Your task to perform on an android device: toggle data saver in the chrome app Image 0: 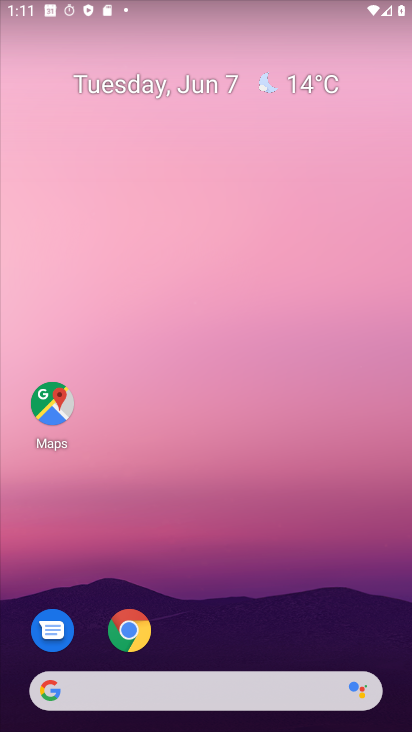
Step 0: click (129, 621)
Your task to perform on an android device: toggle data saver in the chrome app Image 1: 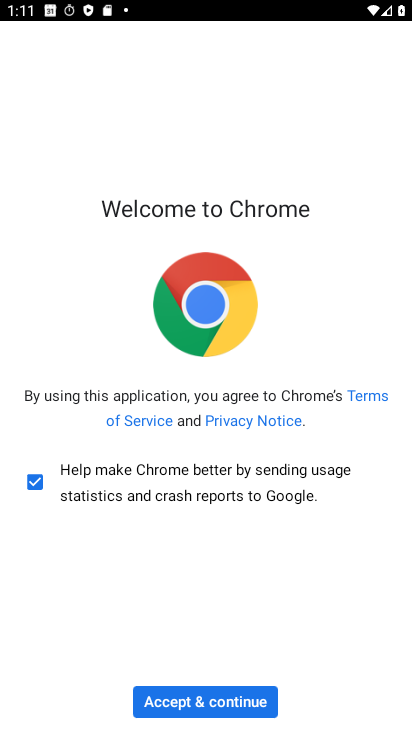
Step 1: click (190, 697)
Your task to perform on an android device: toggle data saver in the chrome app Image 2: 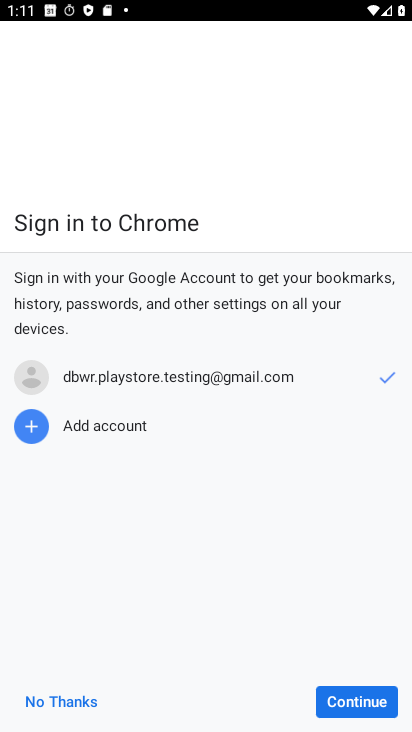
Step 2: click (365, 690)
Your task to perform on an android device: toggle data saver in the chrome app Image 3: 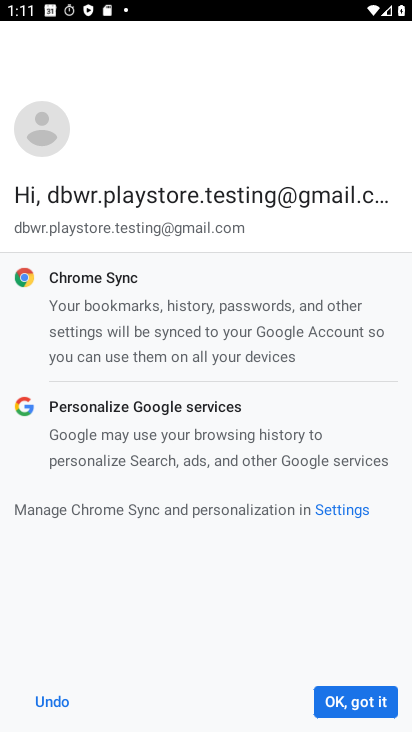
Step 3: click (335, 711)
Your task to perform on an android device: toggle data saver in the chrome app Image 4: 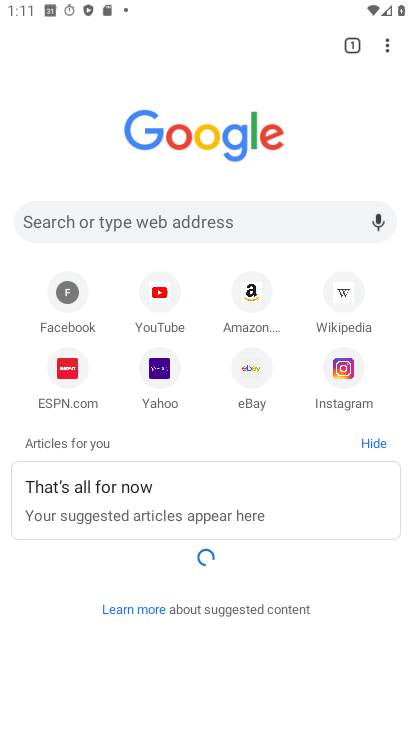
Step 4: click (386, 44)
Your task to perform on an android device: toggle data saver in the chrome app Image 5: 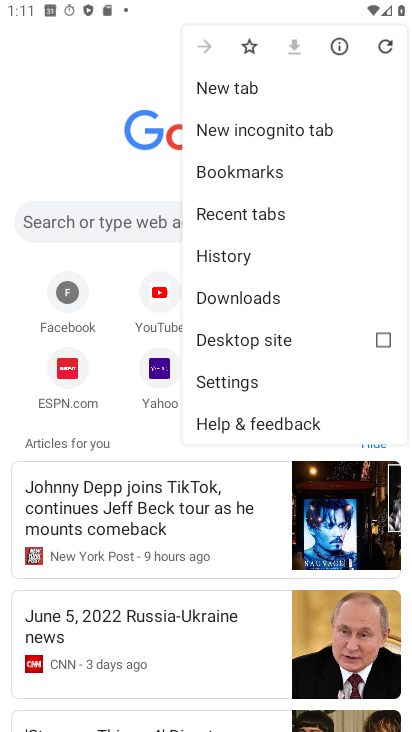
Step 5: click (221, 385)
Your task to perform on an android device: toggle data saver in the chrome app Image 6: 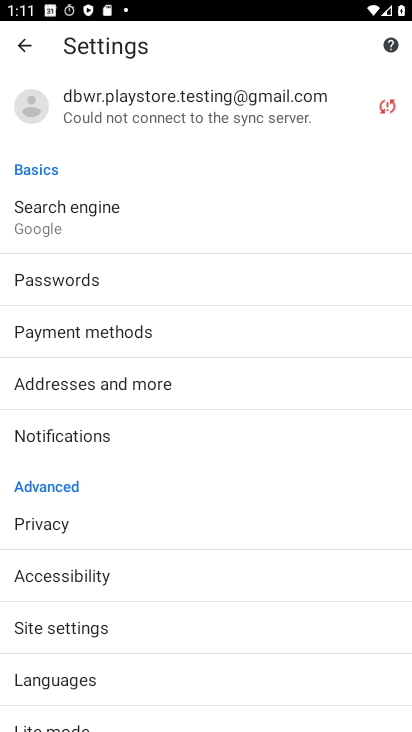
Step 6: drag from (91, 625) to (134, 477)
Your task to perform on an android device: toggle data saver in the chrome app Image 7: 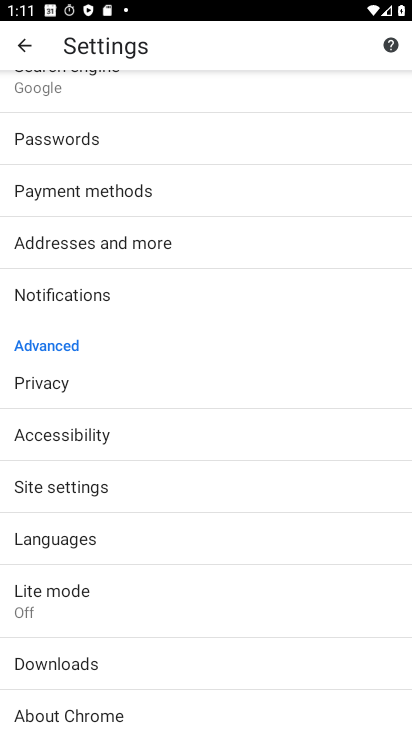
Step 7: click (54, 609)
Your task to perform on an android device: toggle data saver in the chrome app Image 8: 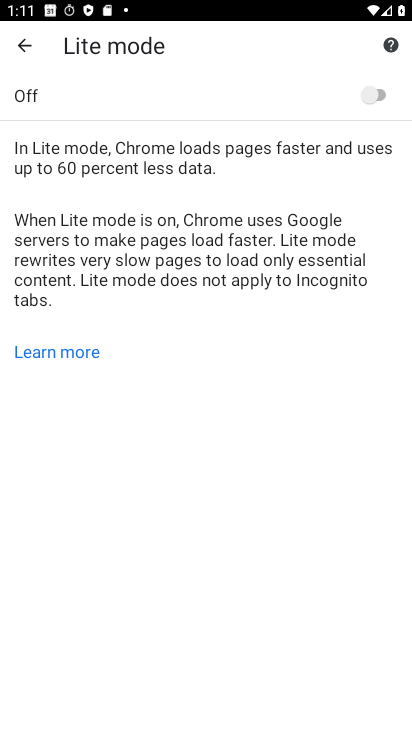
Step 8: click (381, 97)
Your task to perform on an android device: toggle data saver in the chrome app Image 9: 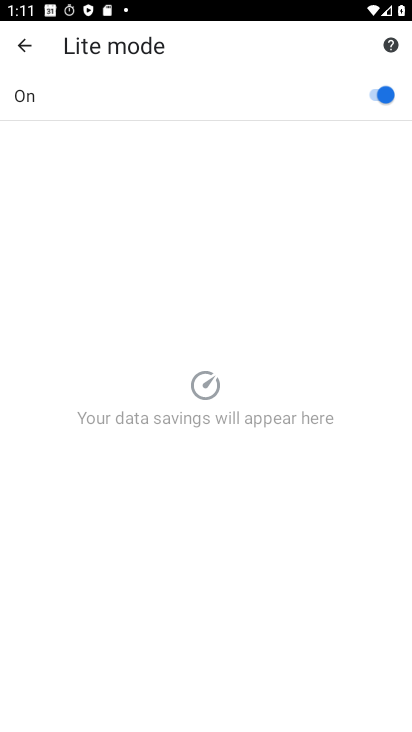
Step 9: task complete